Your task to perform on an android device: turn on location history Image 0: 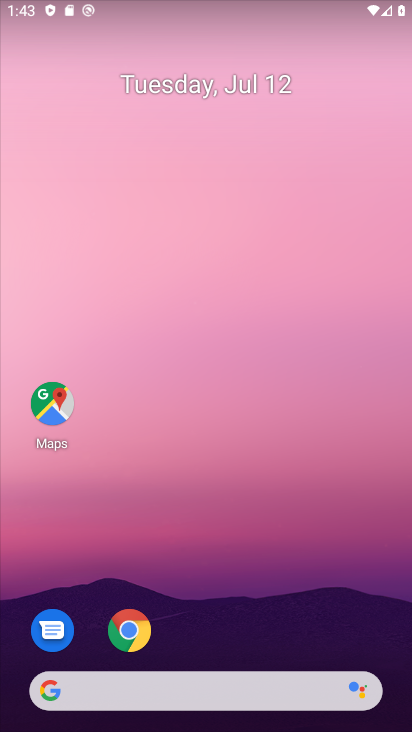
Step 0: drag from (396, 690) to (315, 211)
Your task to perform on an android device: turn on location history Image 1: 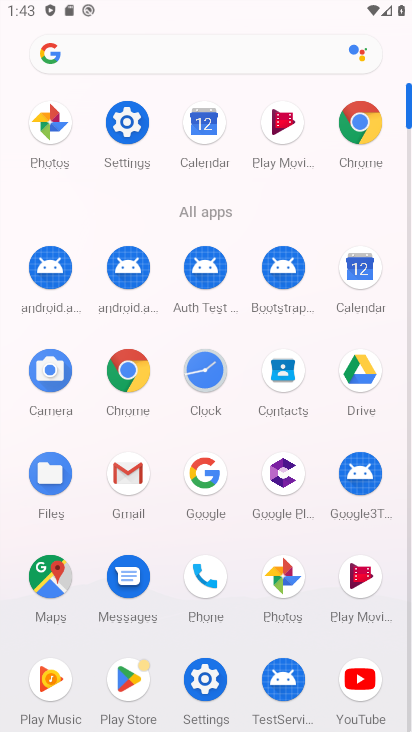
Step 1: click (207, 680)
Your task to perform on an android device: turn on location history Image 2: 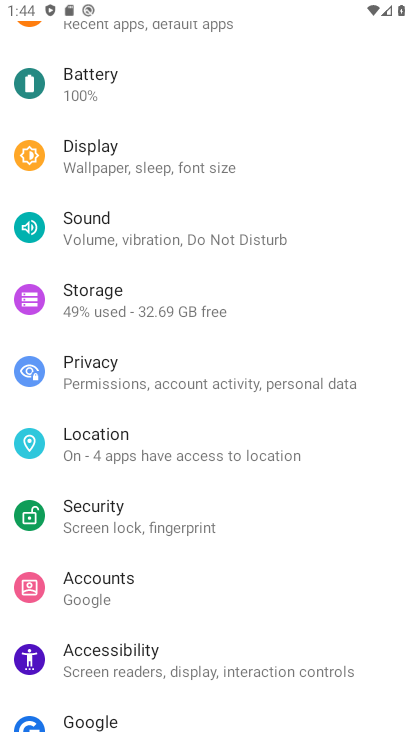
Step 2: click (106, 448)
Your task to perform on an android device: turn on location history Image 3: 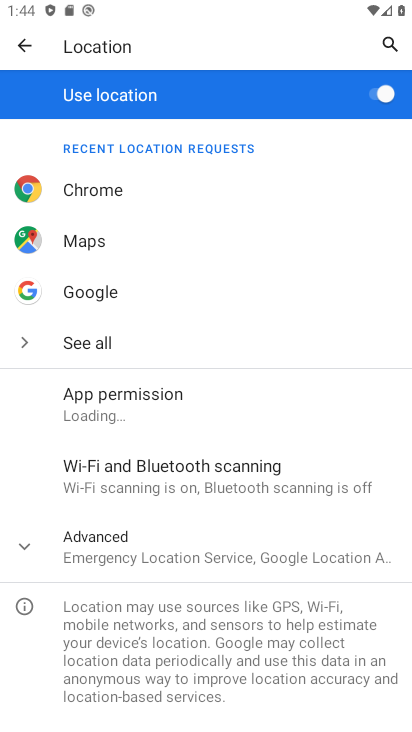
Step 3: click (14, 548)
Your task to perform on an android device: turn on location history Image 4: 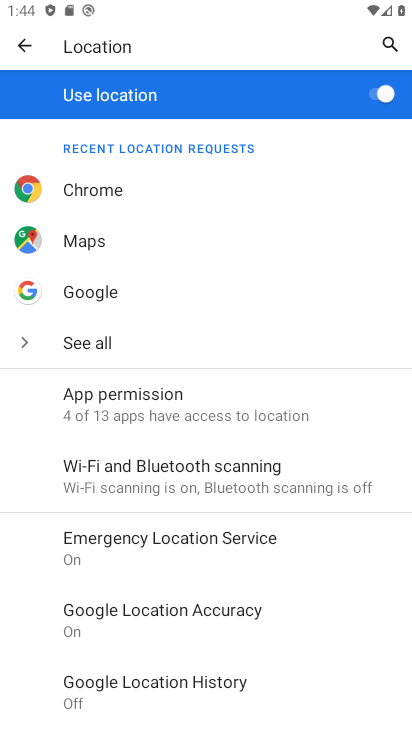
Step 4: click (149, 680)
Your task to perform on an android device: turn on location history Image 5: 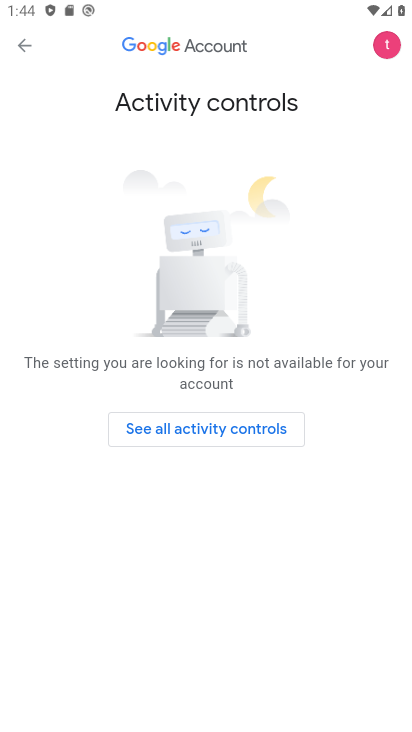
Step 5: task complete